Your task to perform on an android device: clear history in the chrome app Image 0: 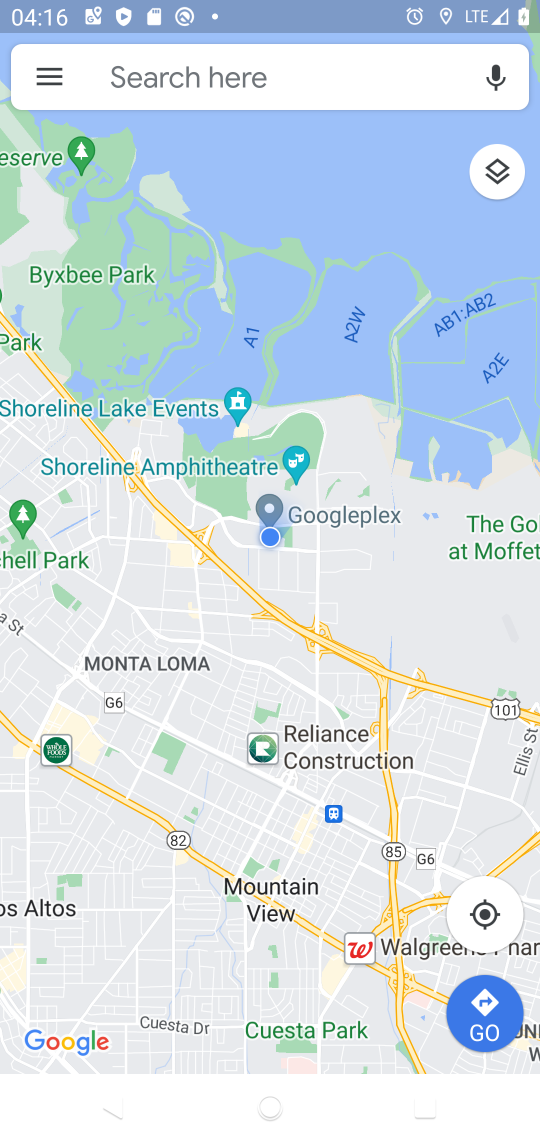
Step 0: press back button
Your task to perform on an android device: clear history in the chrome app Image 1: 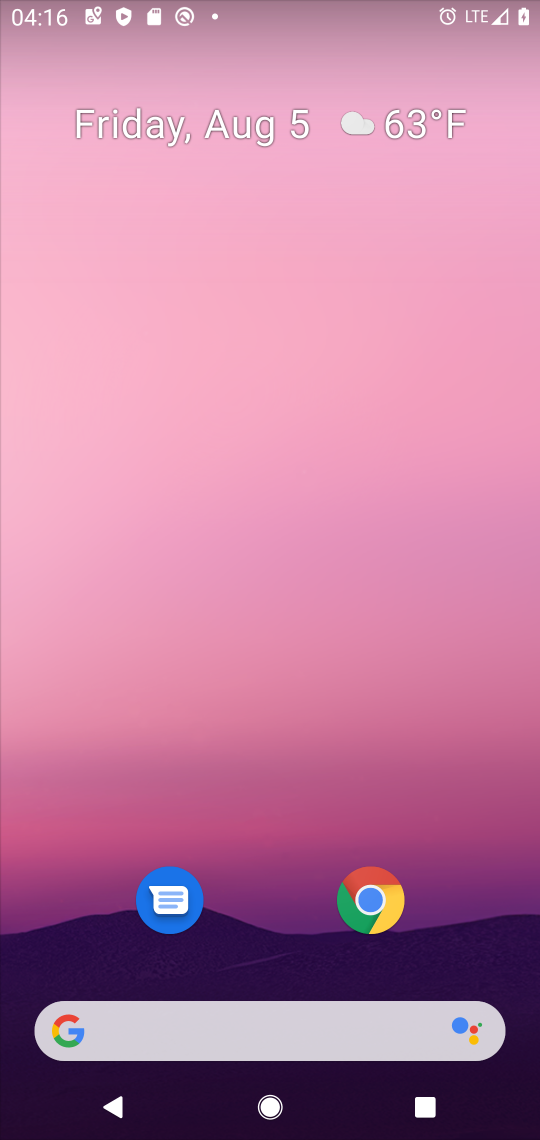
Step 1: click (371, 903)
Your task to perform on an android device: clear history in the chrome app Image 2: 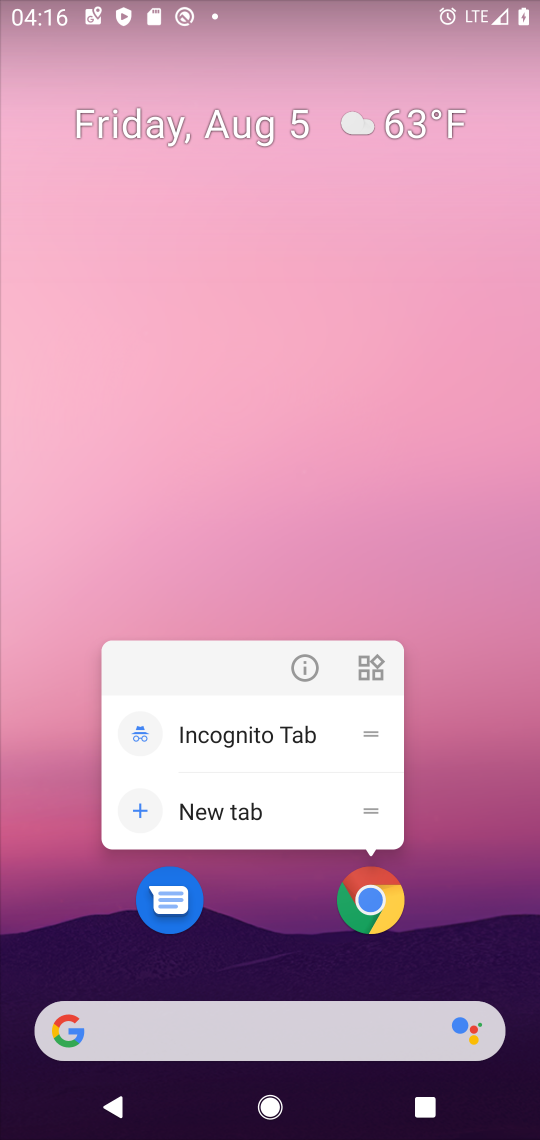
Step 2: click (371, 902)
Your task to perform on an android device: clear history in the chrome app Image 3: 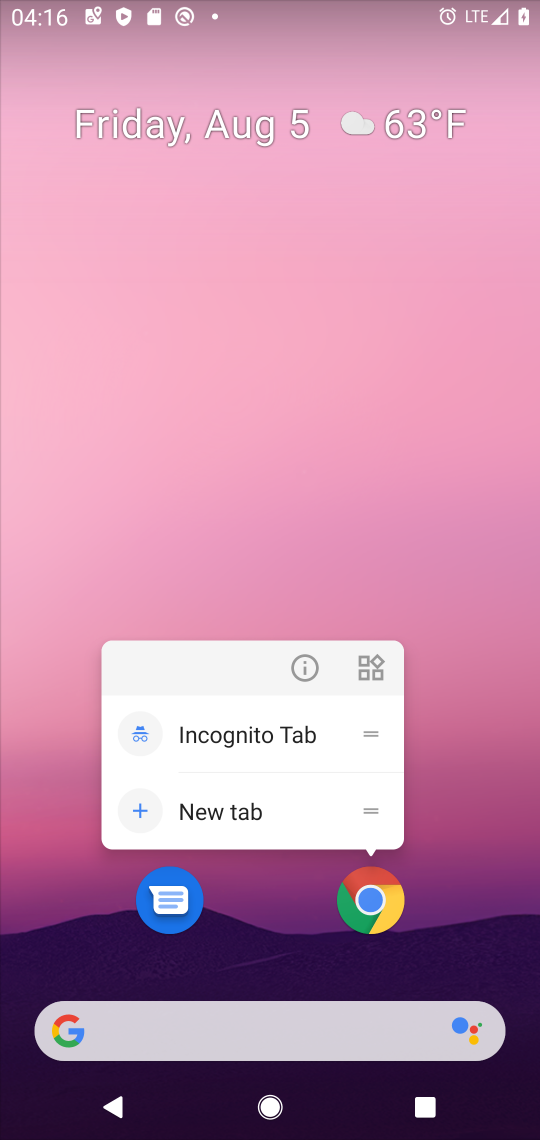
Step 3: click (369, 912)
Your task to perform on an android device: clear history in the chrome app Image 4: 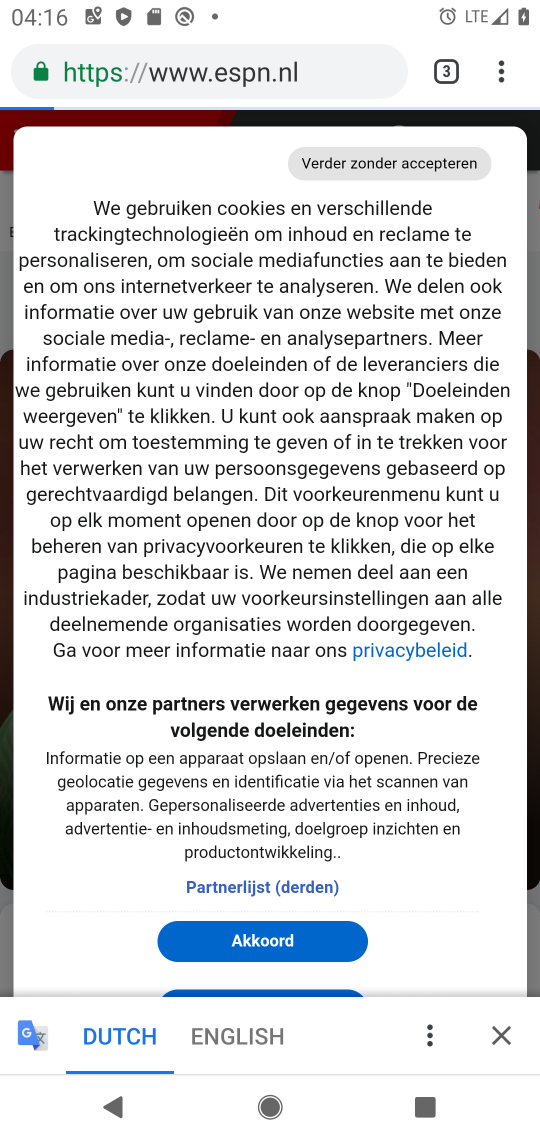
Step 4: drag from (494, 82) to (280, 879)
Your task to perform on an android device: clear history in the chrome app Image 5: 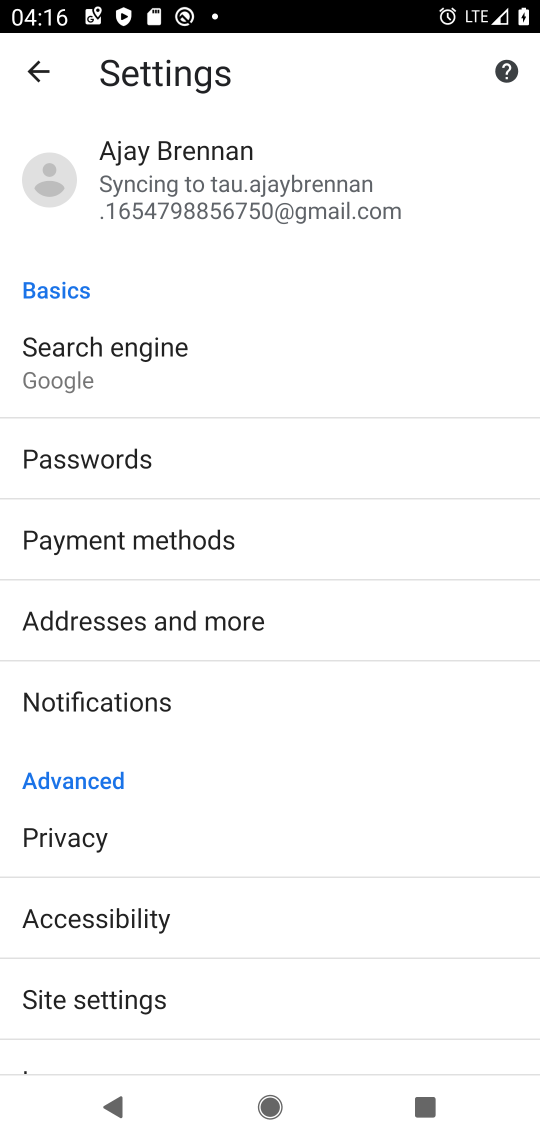
Step 5: drag from (106, 990) to (244, 342)
Your task to perform on an android device: clear history in the chrome app Image 6: 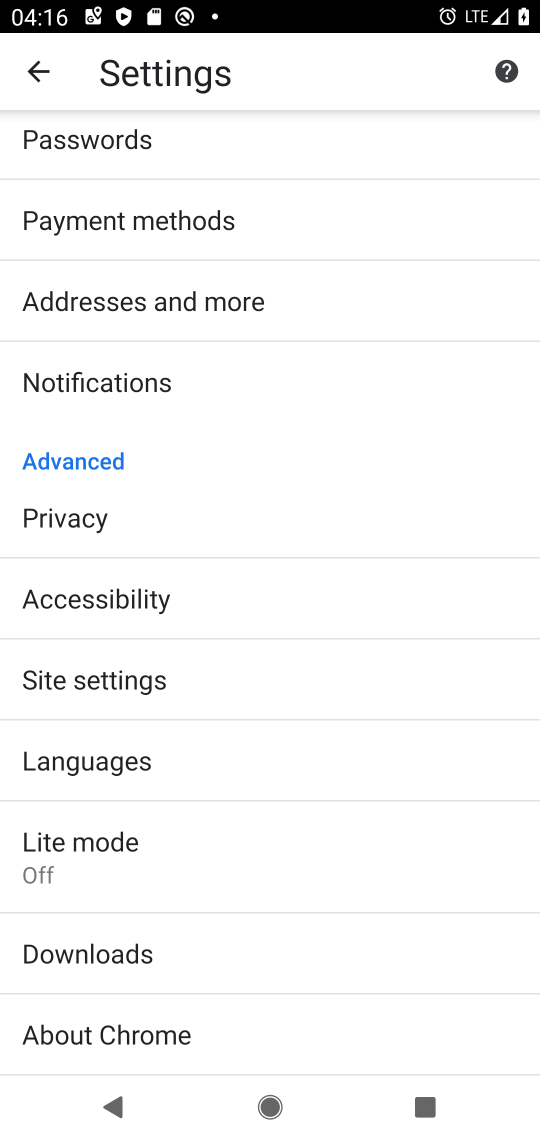
Step 6: drag from (169, 418) to (176, 1137)
Your task to perform on an android device: clear history in the chrome app Image 7: 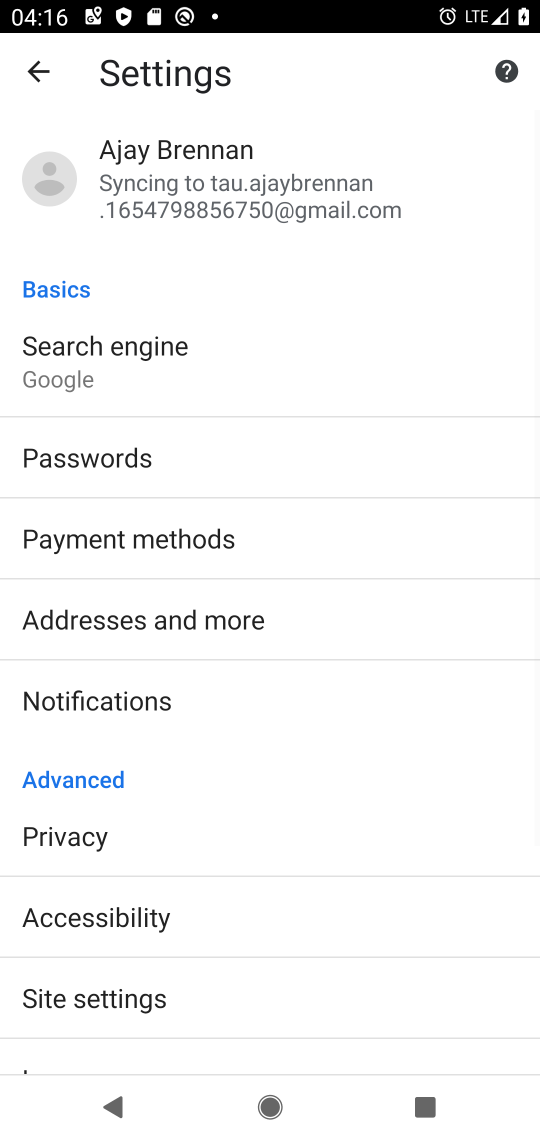
Step 7: click (18, 59)
Your task to perform on an android device: clear history in the chrome app Image 8: 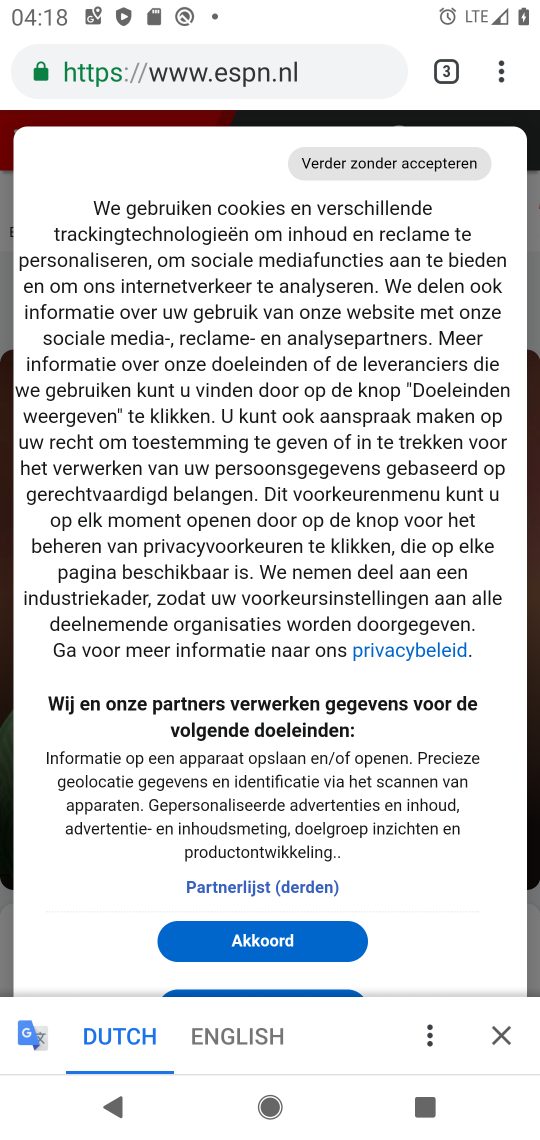
Step 8: drag from (502, 72) to (242, 396)
Your task to perform on an android device: clear history in the chrome app Image 9: 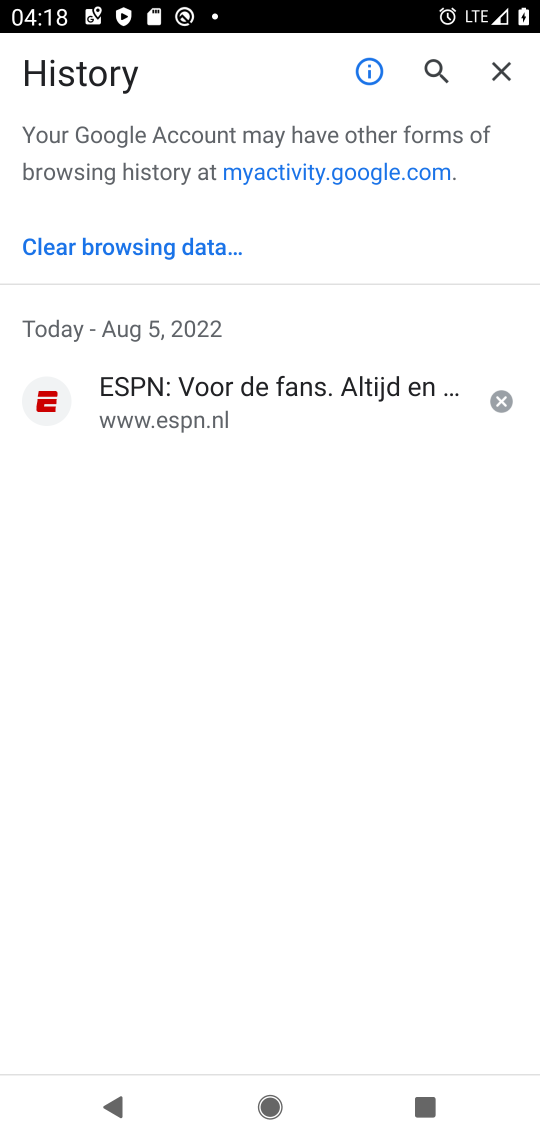
Step 9: click (138, 244)
Your task to perform on an android device: clear history in the chrome app Image 10: 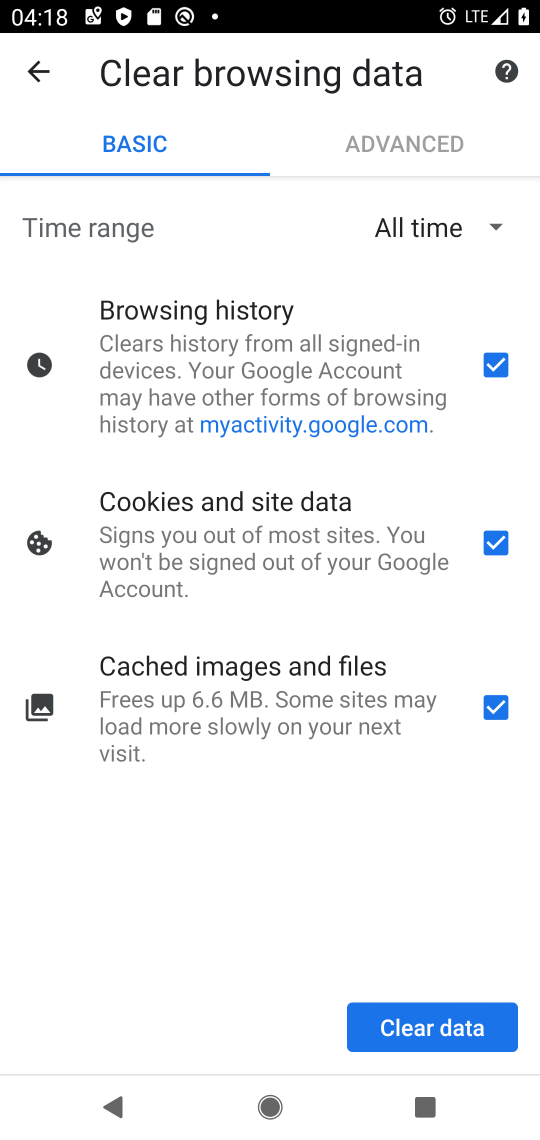
Step 10: click (397, 1024)
Your task to perform on an android device: clear history in the chrome app Image 11: 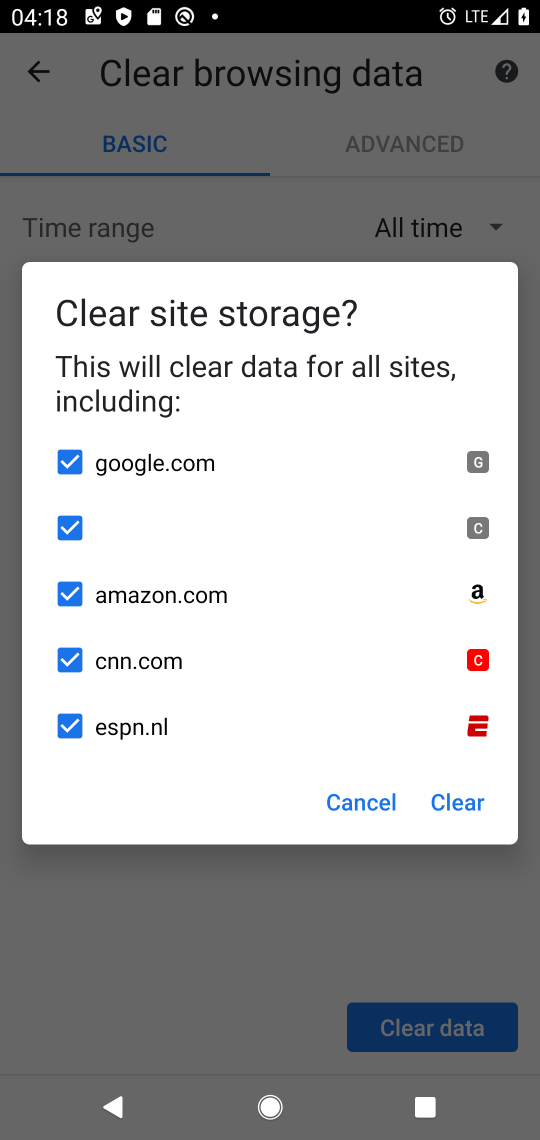
Step 11: click (457, 788)
Your task to perform on an android device: clear history in the chrome app Image 12: 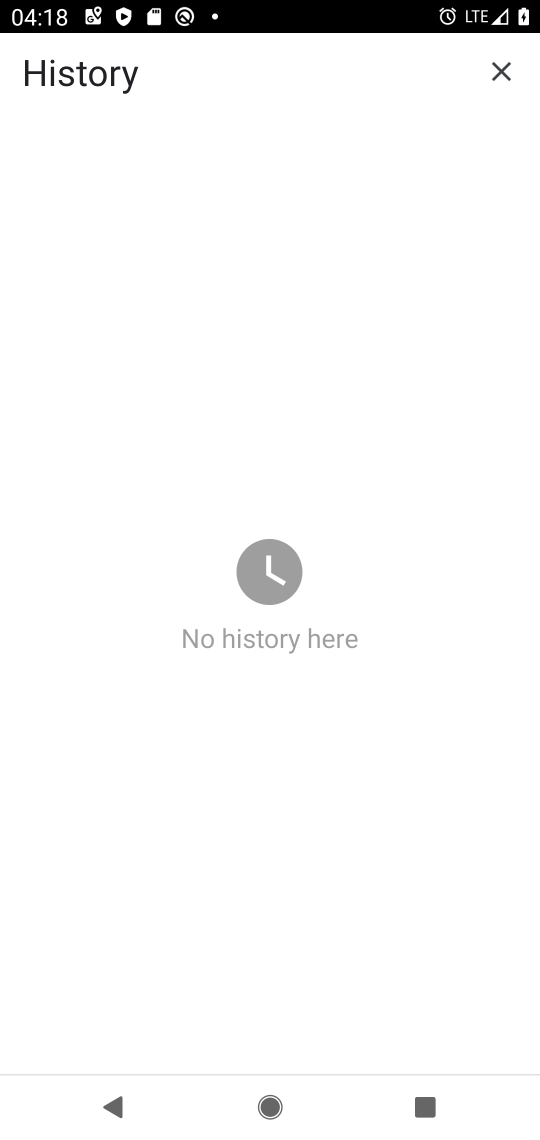
Step 12: task complete